Your task to perform on an android device: install app "Google Duo" Image 0: 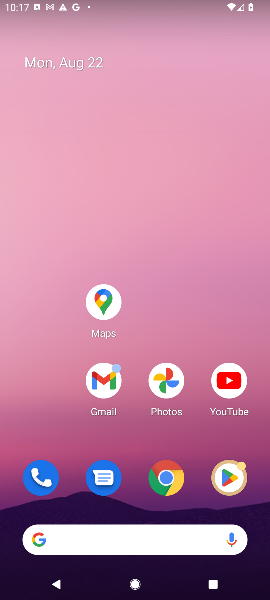
Step 0: click (226, 477)
Your task to perform on an android device: install app "Google Duo" Image 1: 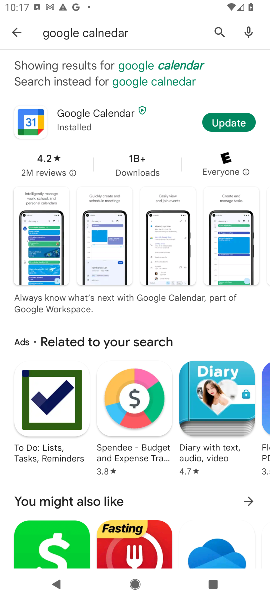
Step 1: click (217, 44)
Your task to perform on an android device: install app "Google Duo" Image 2: 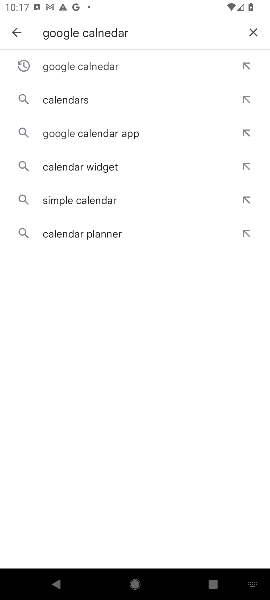
Step 2: click (252, 35)
Your task to perform on an android device: install app "Google Duo" Image 3: 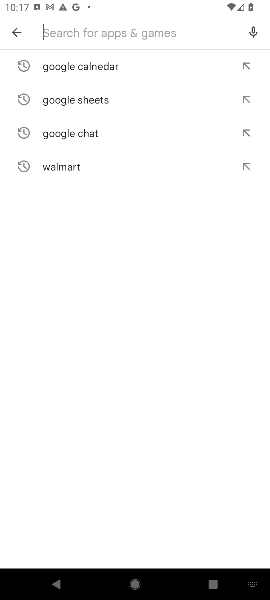
Step 3: type "google duo"
Your task to perform on an android device: install app "Google Duo" Image 4: 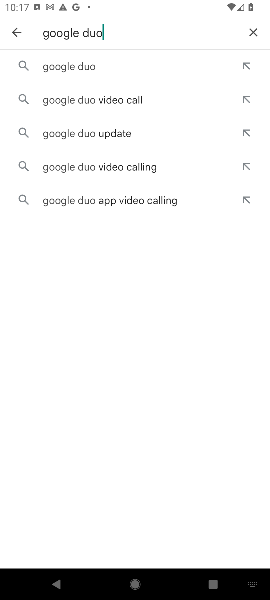
Step 4: click (62, 74)
Your task to perform on an android device: install app "Google Duo" Image 5: 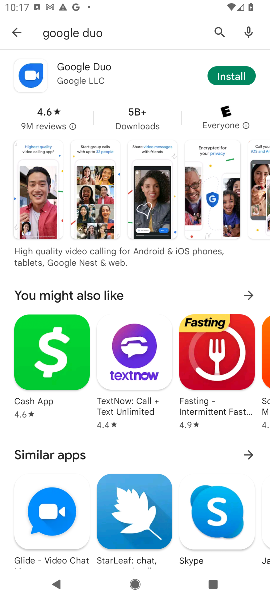
Step 5: click (224, 79)
Your task to perform on an android device: install app "Google Duo" Image 6: 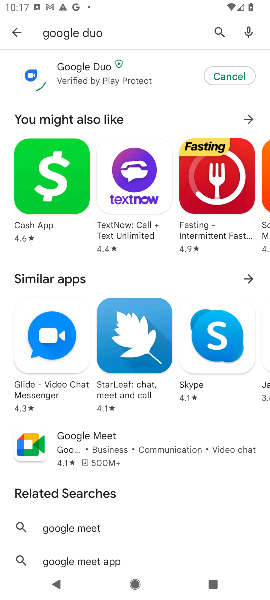
Step 6: task complete